Your task to perform on an android device: Open the calendar and show me this week's events? Image 0: 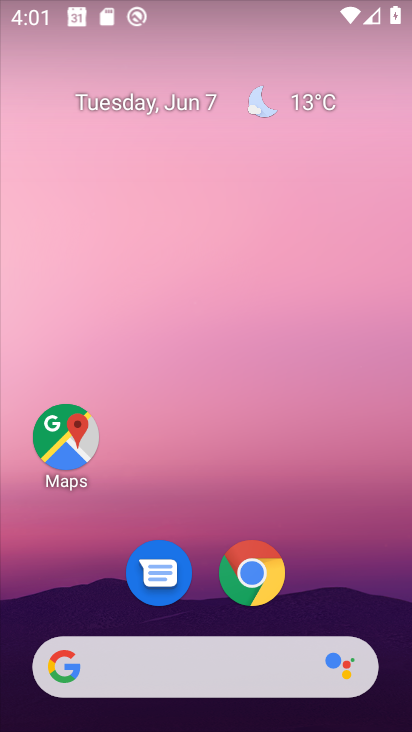
Step 0: press home button
Your task to perform on an android device: Open the calendar and show me this week's events? Image 1: 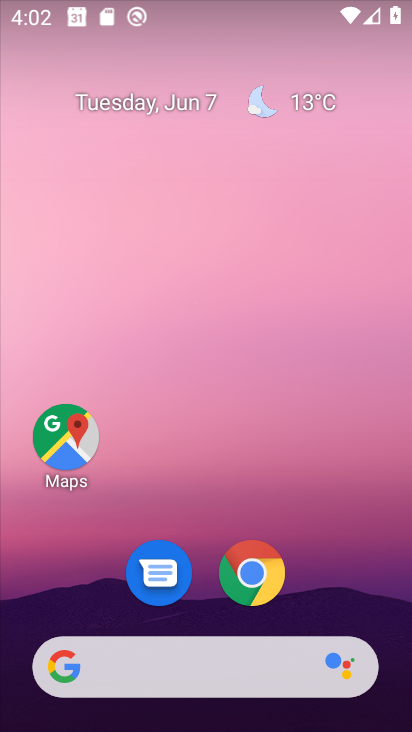
Step 1: drag from (391, 689) to (305, 317)
Your task to perform on an android device: Open the calendar and show me this week's events? Image 2: 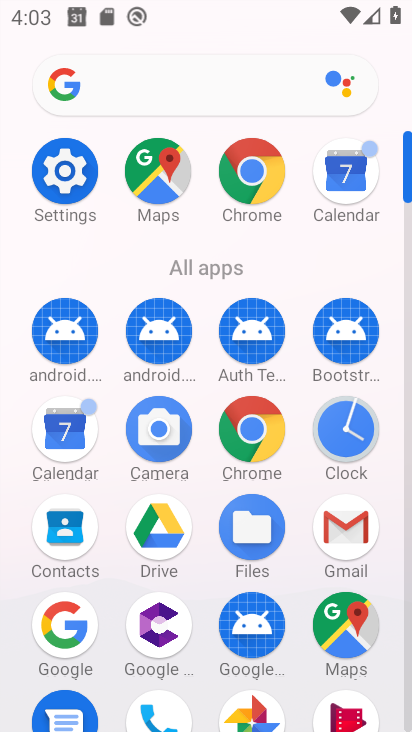
Step 2: drag from (290, 608) to (237, 407)
Your task to perform on an android device: Open the calendar and show me this week's events? Image 3: 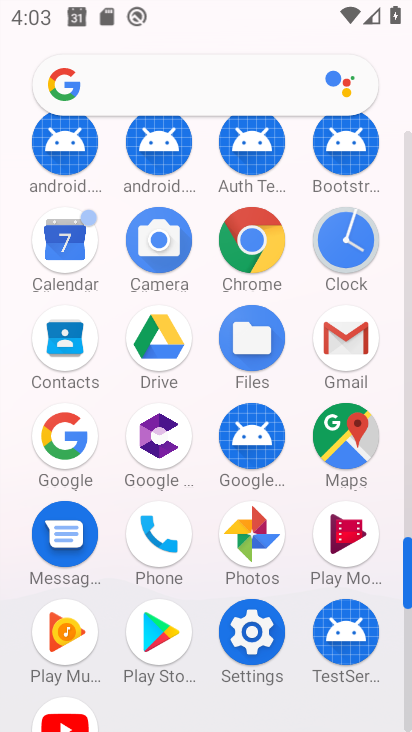
Step 3: drag from (249, 593) to (252, 368)
Your task to perform on an android device: Open the calendar and show me this week's events? Image 4: 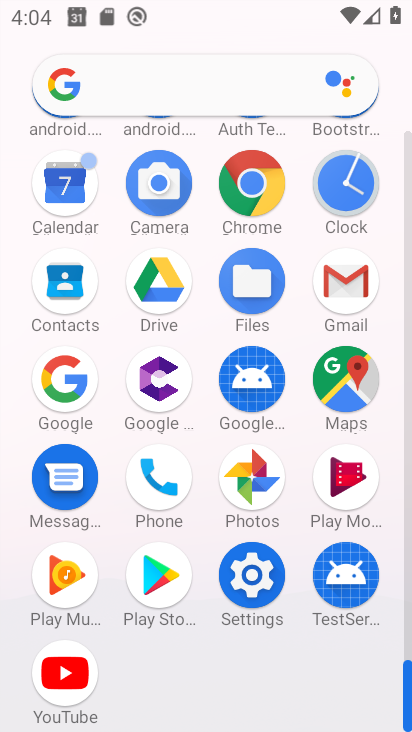
Step 4: click (61, 178)
Your task to perform on an android device: Open the calendar and show me this week's events? Image 5: 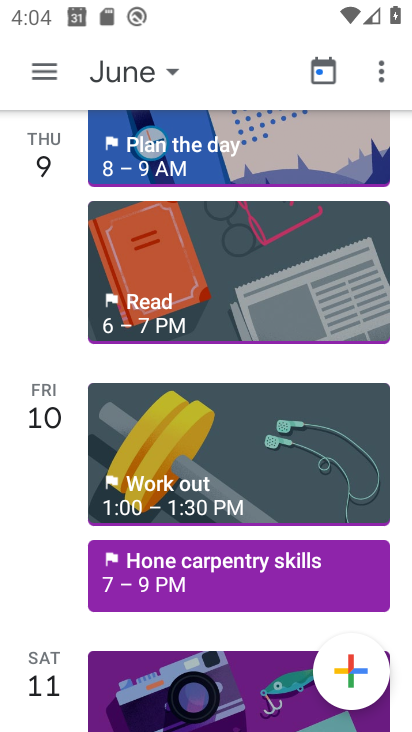
Step 5: click (164, 74)
Your task to perform on an android device: Open the calendar and show me this week's events? Image 6: 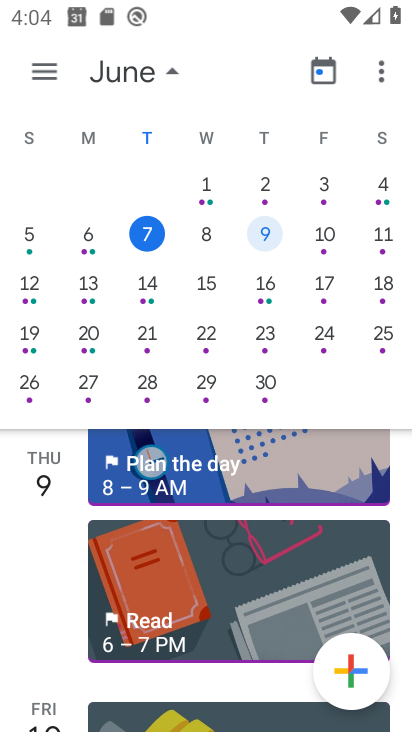
Step 6: click (384, 228)
Your task to perform on an android device: Open the calendar and show me this week's events? Image 7: 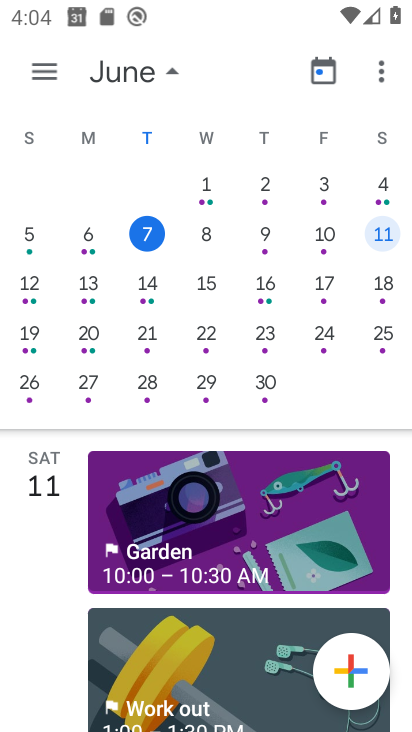
Step 7: click (162, 73)
Your task to perform on an android device: Open the calendar and show me this week's events? Image 8: 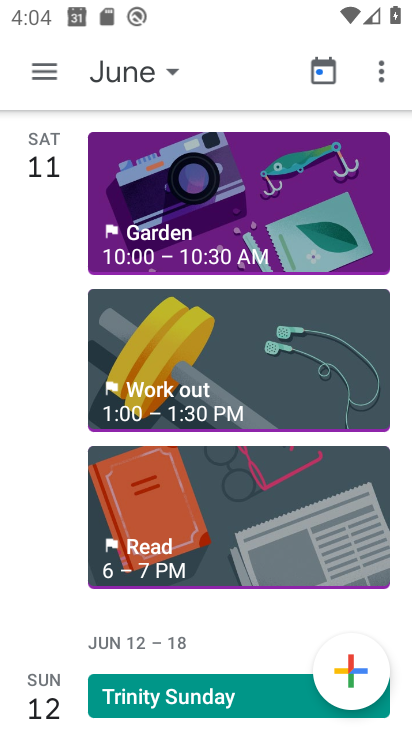
Step 8: task complete